Your task to perform on an android device: allow notifications from all sites in the chrome app Image 0: 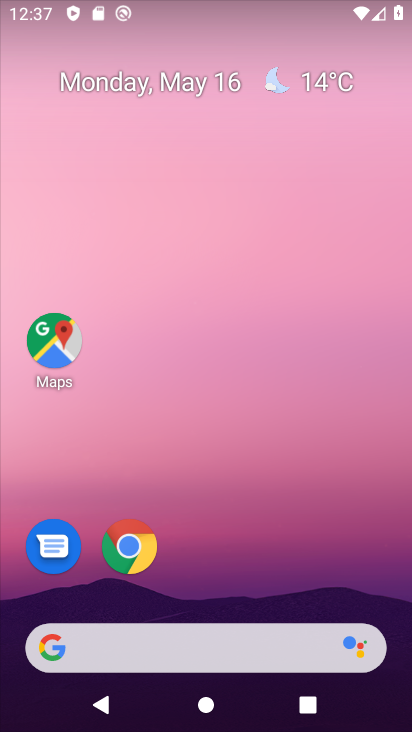
Step 0: drag from (277, 623) to (394, 260)
Your task to perform on an android device: allow notifications from all sites in the chrome app Image 1: 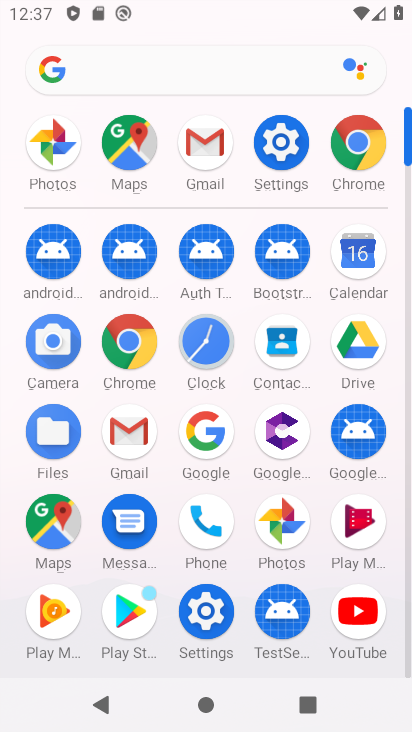
Step 1: click (129, 344)
Your task to perform on an android device: allow notifications from all sites in the chrome app Image 2: 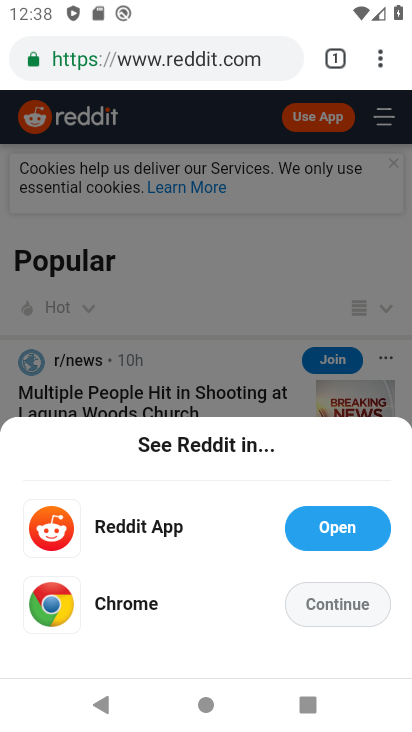
Step 2: click (382, 66)
Your task to perform on an android device: allow notifications from all sites in the chrome app Image 3: 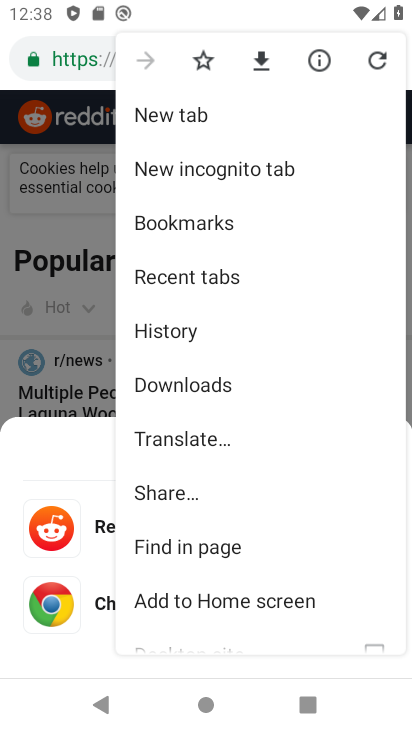
Step 3: drag from (258, 508) to (329, 386)
Your task to perform on an android device: allow notifications from all sites in the chrome app Image 4: 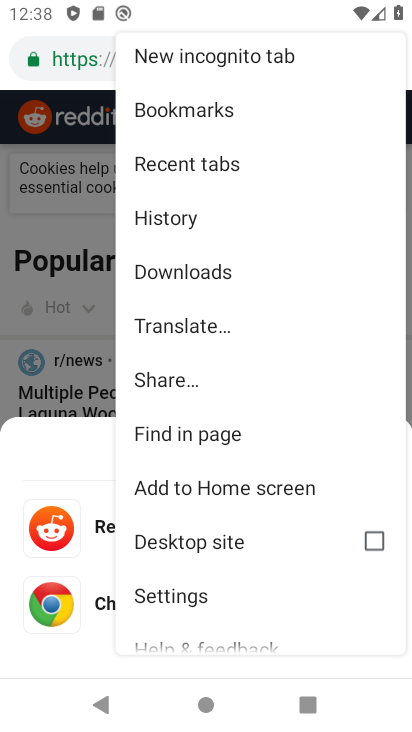
Step 4: click (168, 591)
Your task to perform on an android device: allow notifications from all sites in the chrome app Image 5: 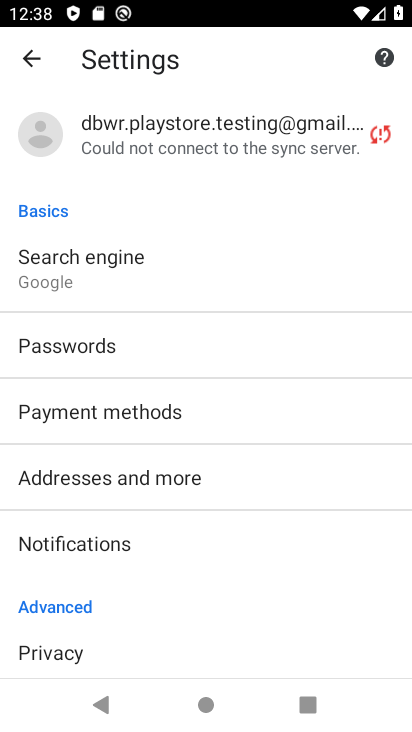
Step 5: drag from (87, 605) to (240, 406)
Your task to perform on an android device: allow notifications from all sites in the chrome app Image 6: 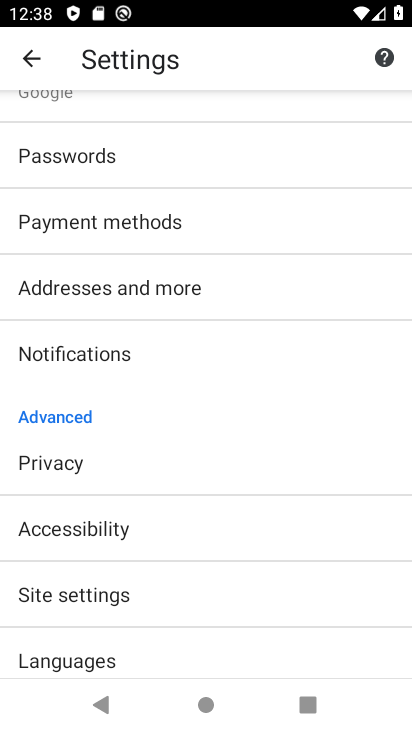
Step 6: click (81, 347)
Your task to perform on an android device: allow notifications from all sites in the chrome app Image 7: 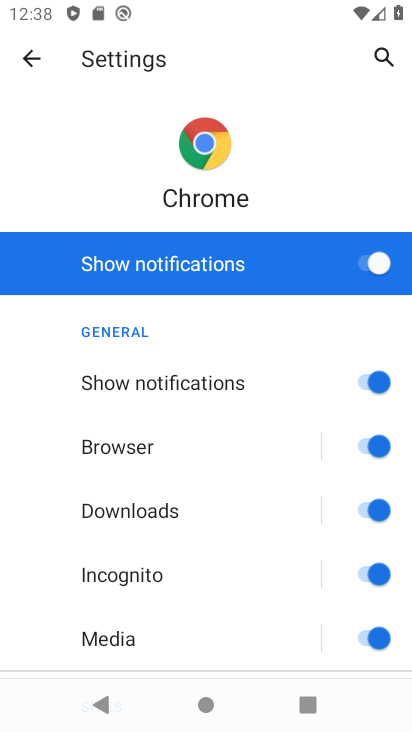
Step 7: task complete